Your task to perform on an android device: Open Youtube and go to "Your channel" Image 0: 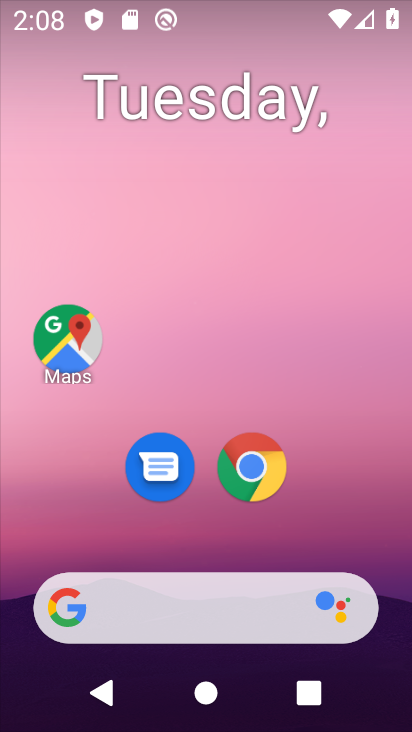
Step 0: drag from (357, 405) to (374, 131)
Your task to perform on an android device: Open Youtube and go to "Your channel" Image 1: 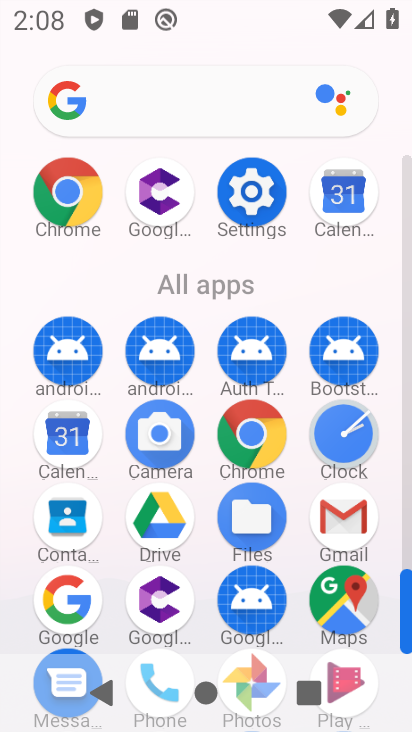
Step 1: drag from (292, 482) to (321, 176)
Your task to perform on an android device: Open Youtube and go to "Your channel" Image 2: 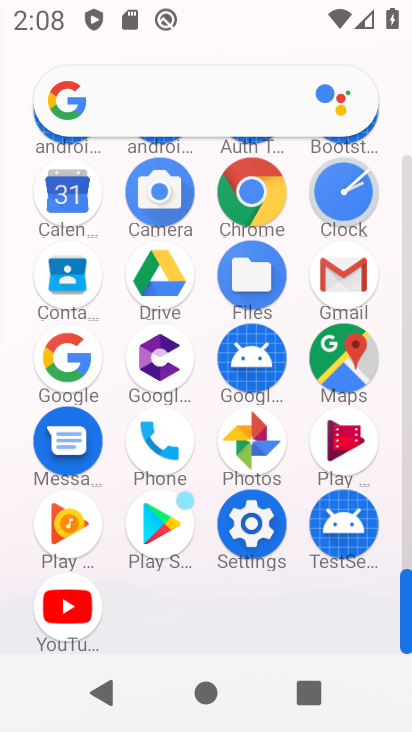
Step 2: click (68, 613)
Your task to perform on an android device: Open Youtube and go to "Your channel" Image 3: 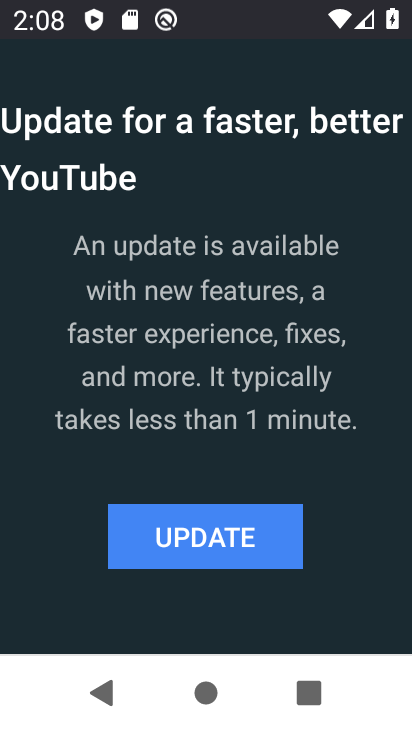
Step 3: click (234, 544)
Your task to perform on an android device: Open Youtube and go to "Your channel" Image 4: 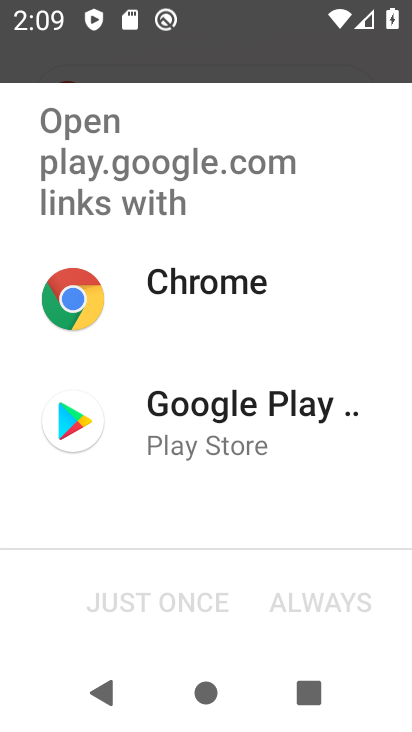
Step 4: click (210, 431)
Your task to perform on an android device: Open Youtube and go to "Your channel" Image 5: 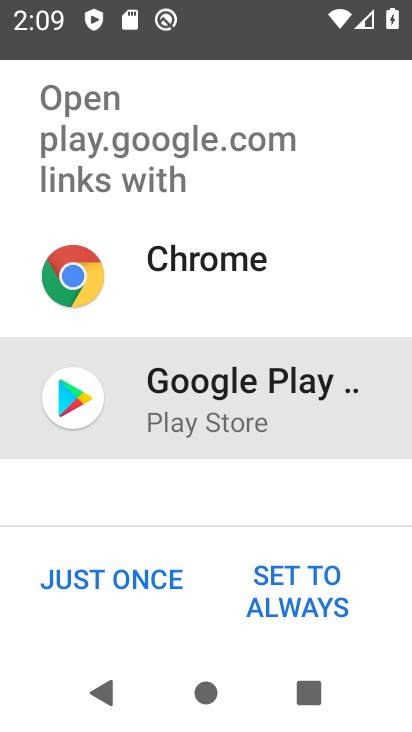
Step 5: click (107, 575)
Your task to perform on an android device: Open Youtube and go to "Your channel" Image 6: 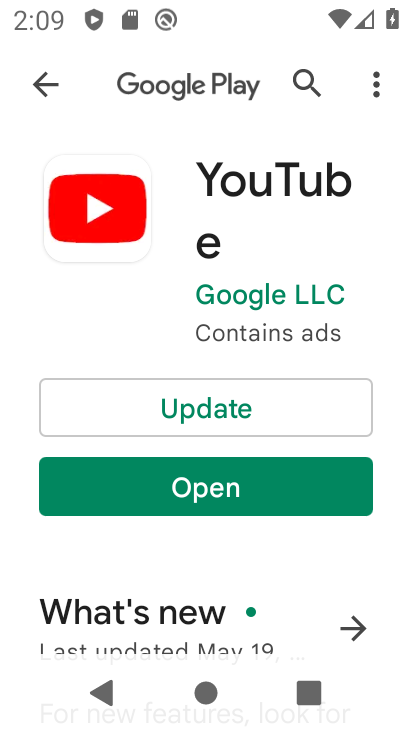
Step 6: click (245, 412)
Your task to perform on an android device: Open Youtube and go to "Your channel" Image 7: 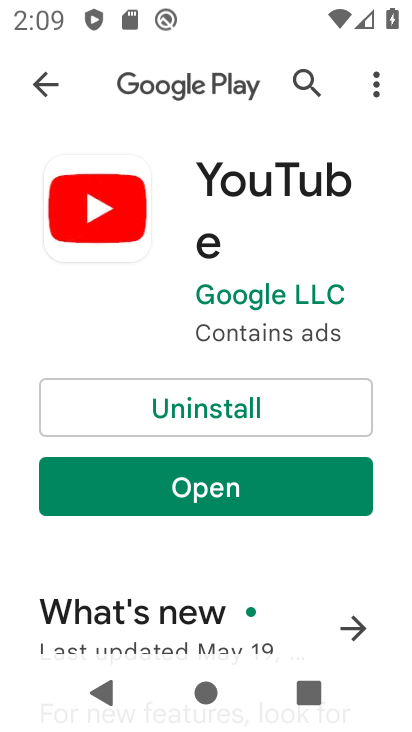
Step 7: click (253, 479)
Your task to perform on an android device: Open Youtube and go to "Your channel" Image 8: 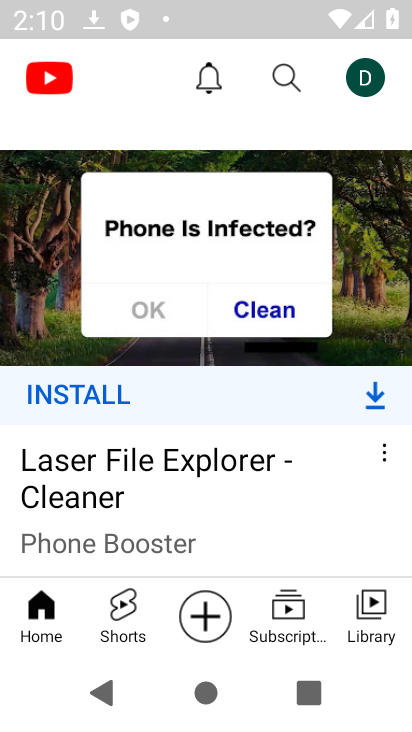
Step 8: click (365, 80)
Your task to perform on an android device: Open Youtube and go to "Your channel" Image 9: 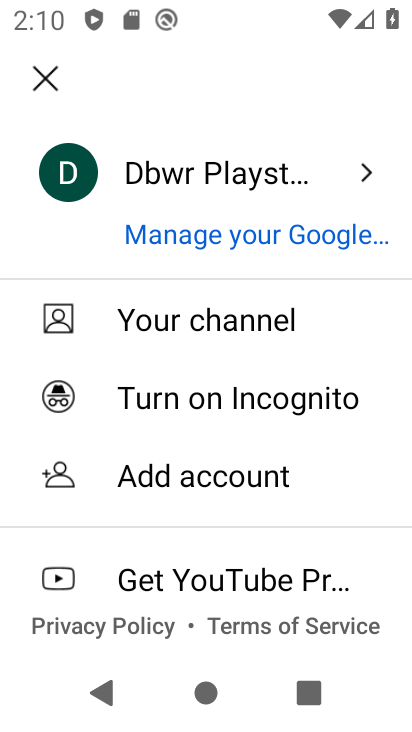
Step 9: click (285, 326)
Your task to perform on an android device: Open Youtube and go to "Your channel" Image 10: 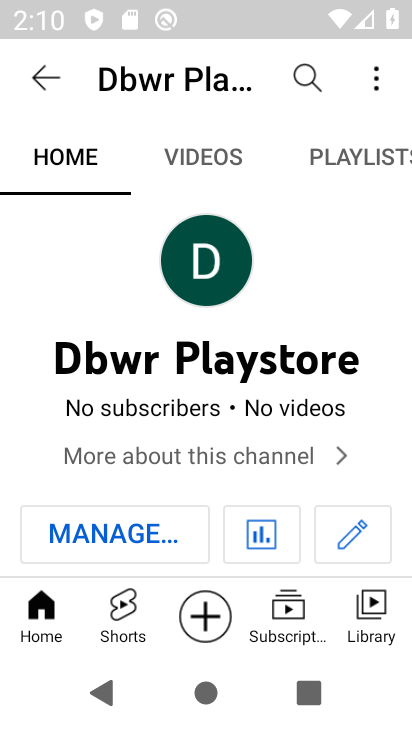
Step 10: task complete